Your task to perform on an android device: Go to Maps Image 0: 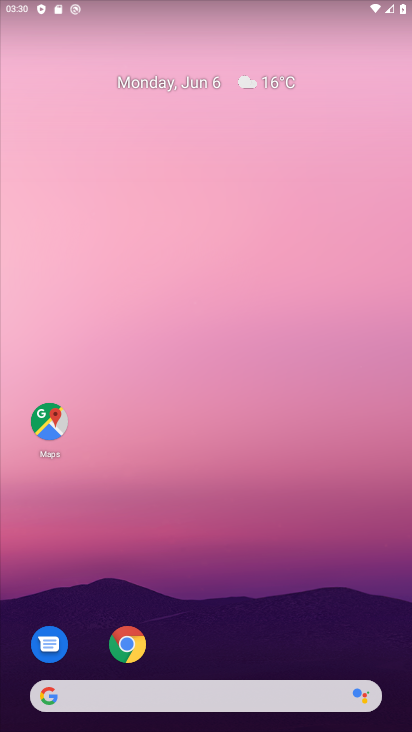
Step 0: click (43, 432)
Your task to perform on an android device: Go to Maps Image 1: 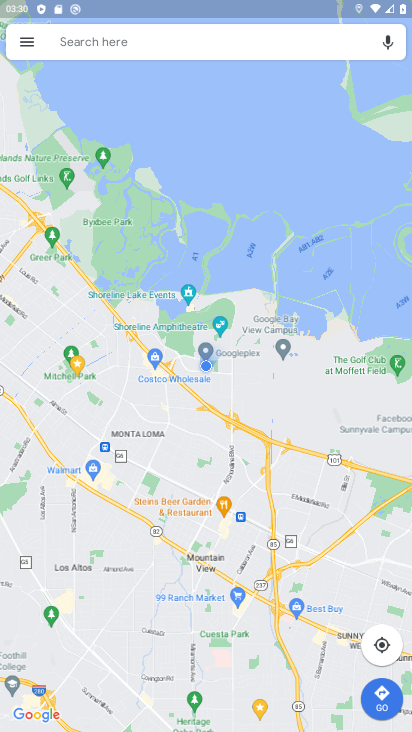
Step 1: task complete